Your task to perform on an android device: Go to Maps Image 0: 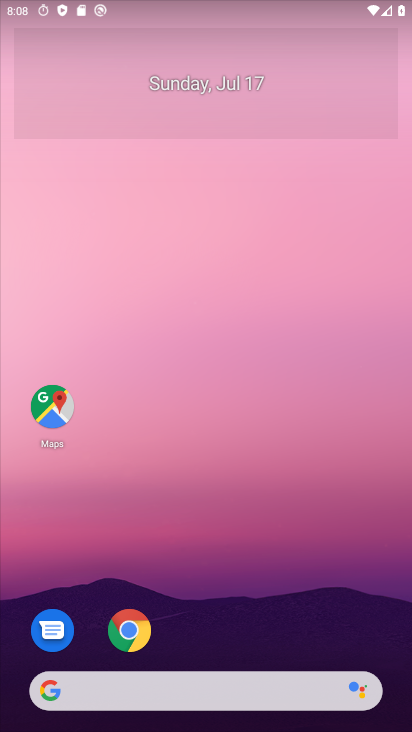
Step 0: click (49, 393)
Your task to perform on an android device: Go to Maps Image 1: 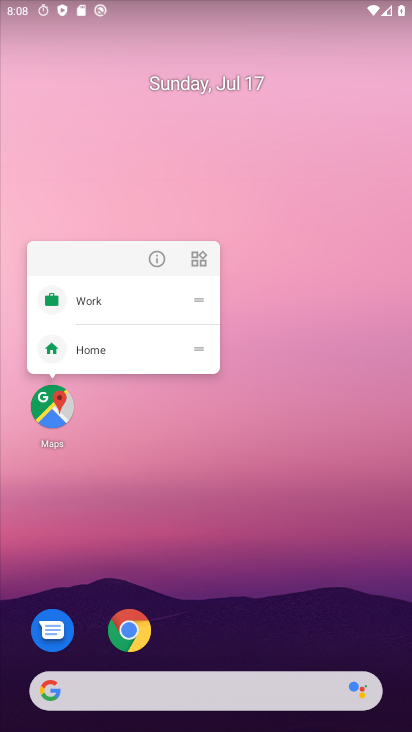
Step 1: click (62, 419)
Your task to perform on an android device: Go to Maps Image 2: 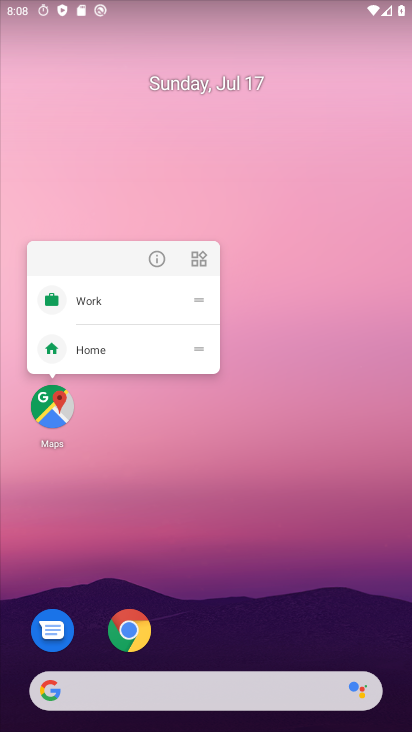
Step 2: click (26, 385)
Your task to perform on an android device: Go to Maps Image 3: 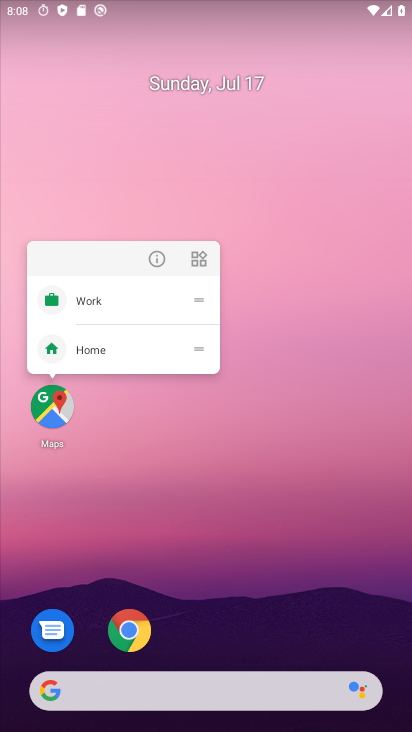
Step 3: click (43, 424)
Your task to perform on an android device: Go to Maps Image 4: 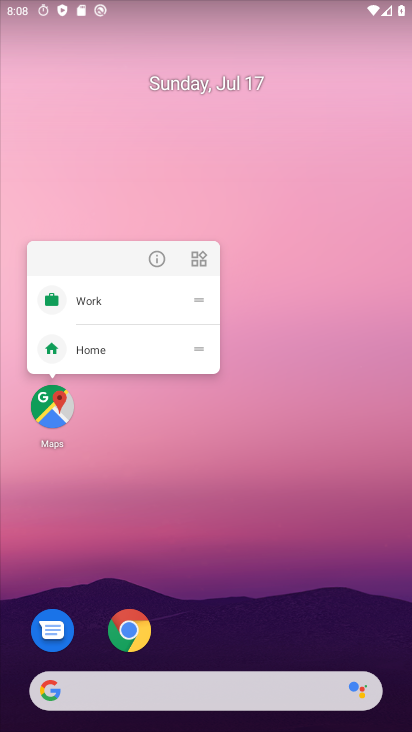
Step 4: click (65, 408)
Your task to perform on an android device: Go to Maps Image 5: 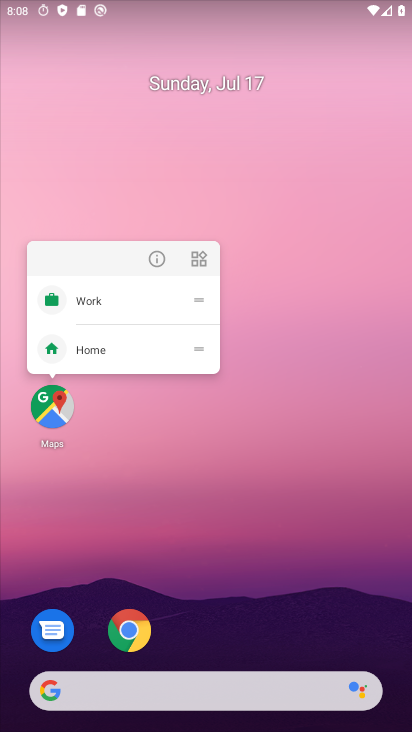
Step 5: task complete